Your task to perform on an android device: View the shopping cart on walmart. Add razer kraken to the cart on walmart Image 0: 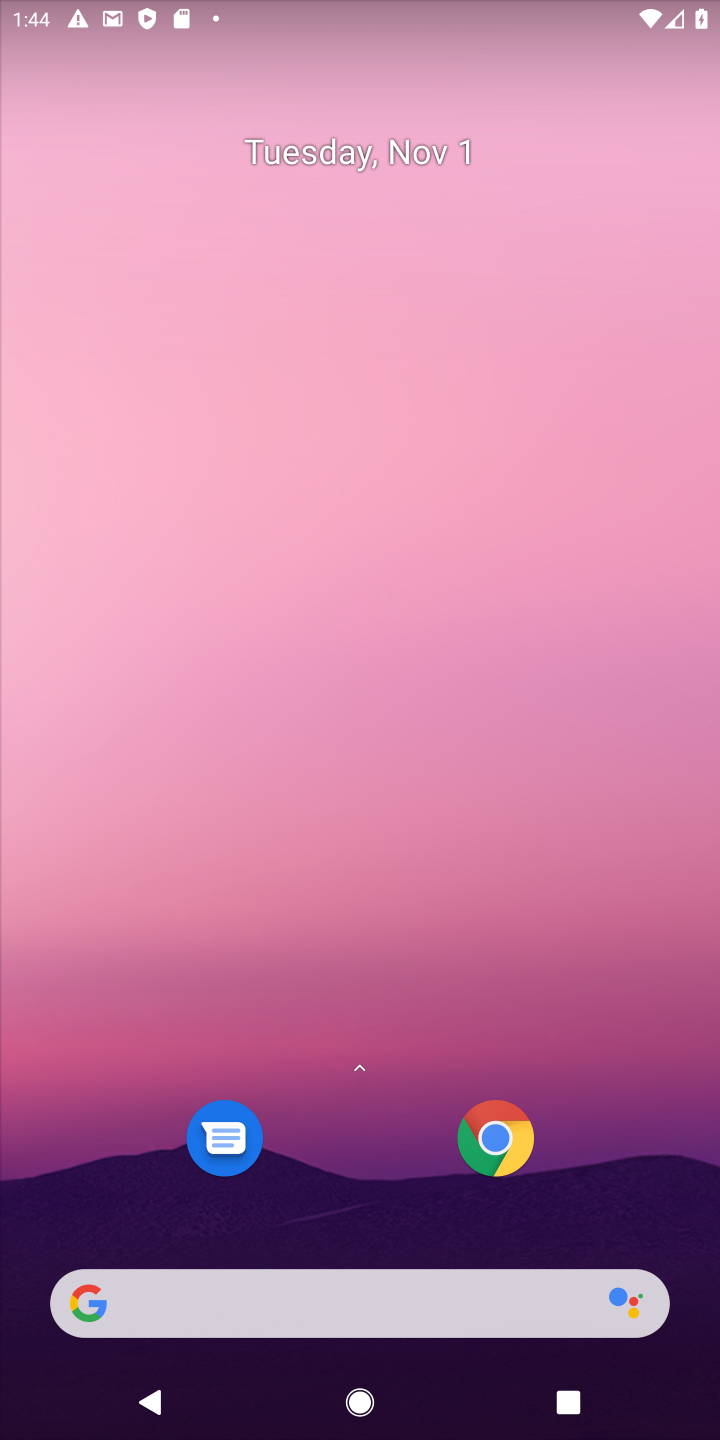
Step 0: drag from (416, 1206) to (430, 11)
Your task to perform on an android device: View the shopping cart on walmart. Add razer kraken to the cart on walmart Image 1: 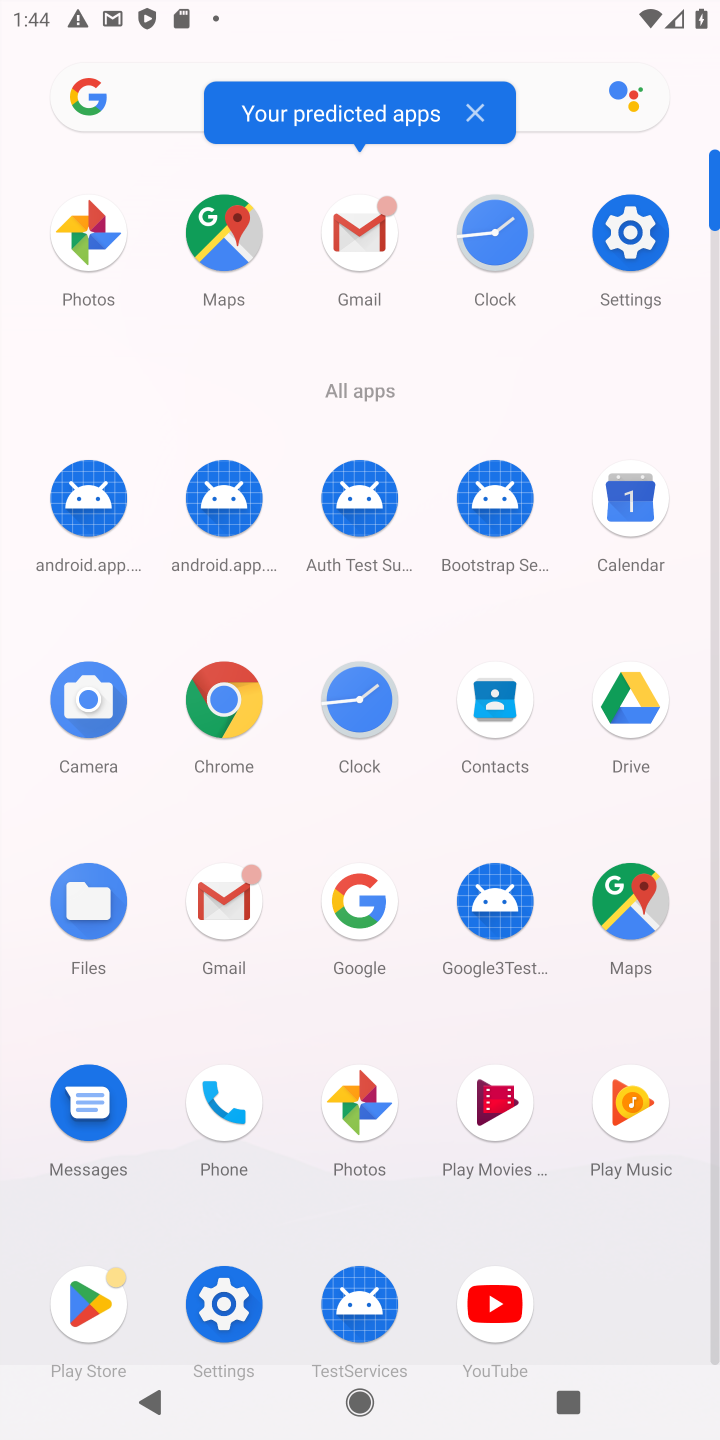
Step 1: click (220, 704)
Your task to perform on an android device: View the shopping cart on walmart. Add razer kraken to the cart on walmart Image 2: 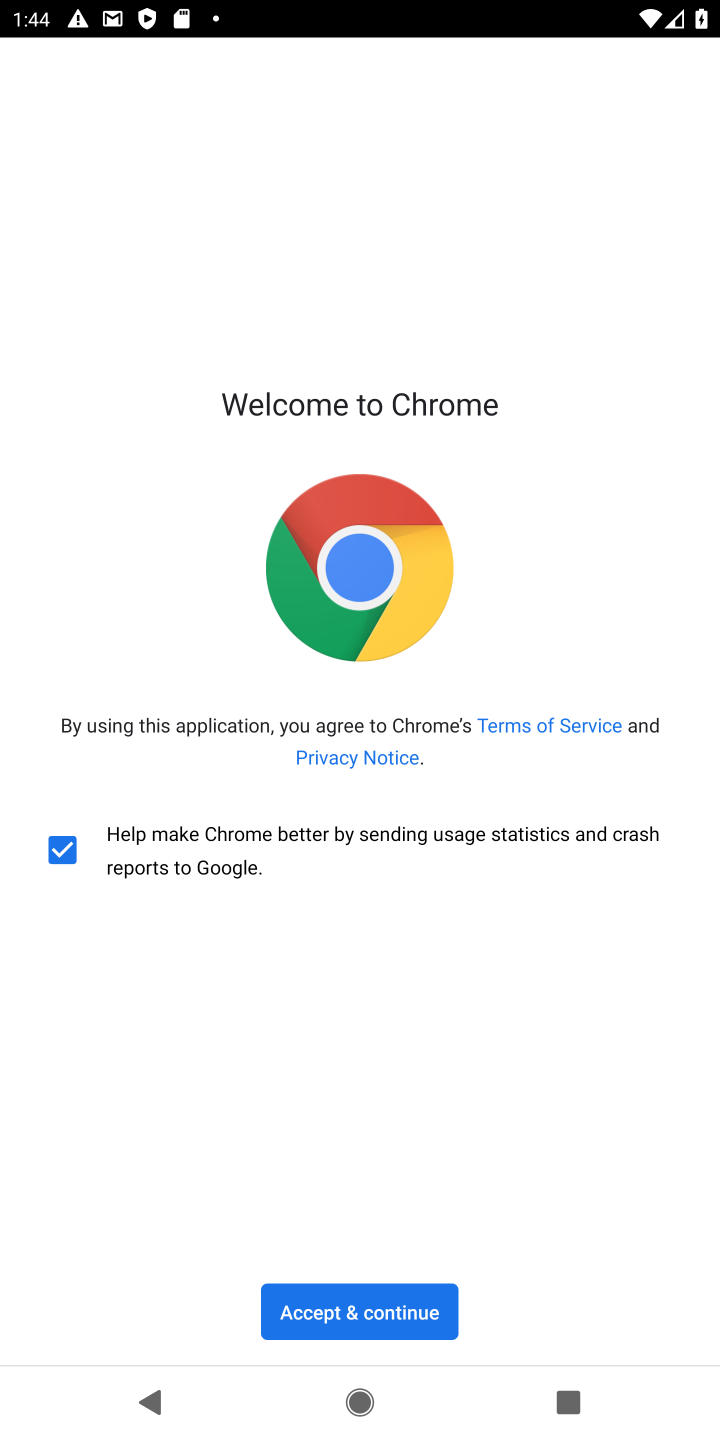
Step 2: click (365, 1310)
Your task to perform on an android device: View the shopping cart on walmart. Add razer kraken to the cart on walmart Image 3: 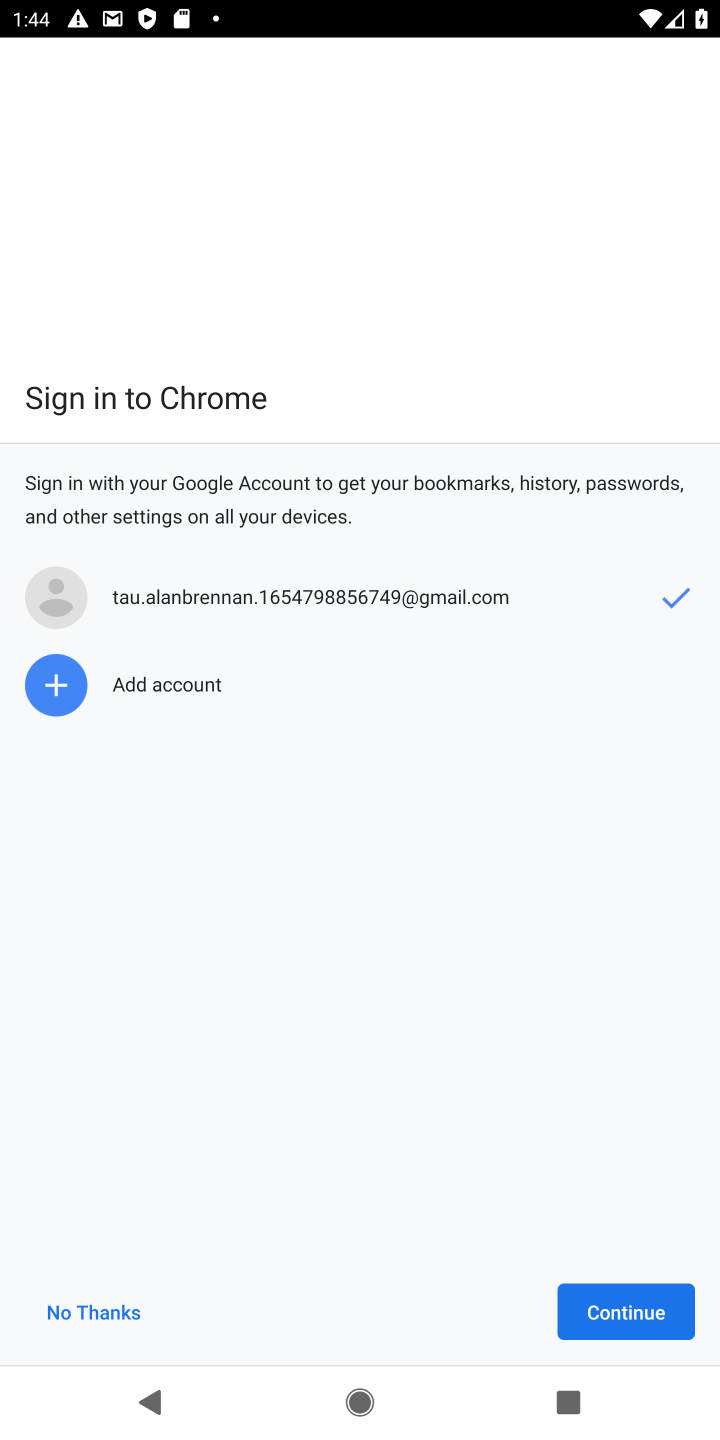
Step 3: click (622, 1306)
Your task to perform on an android device: View the shopping cart on walmart. Add razer kraken to the cart on walmart Image 4: 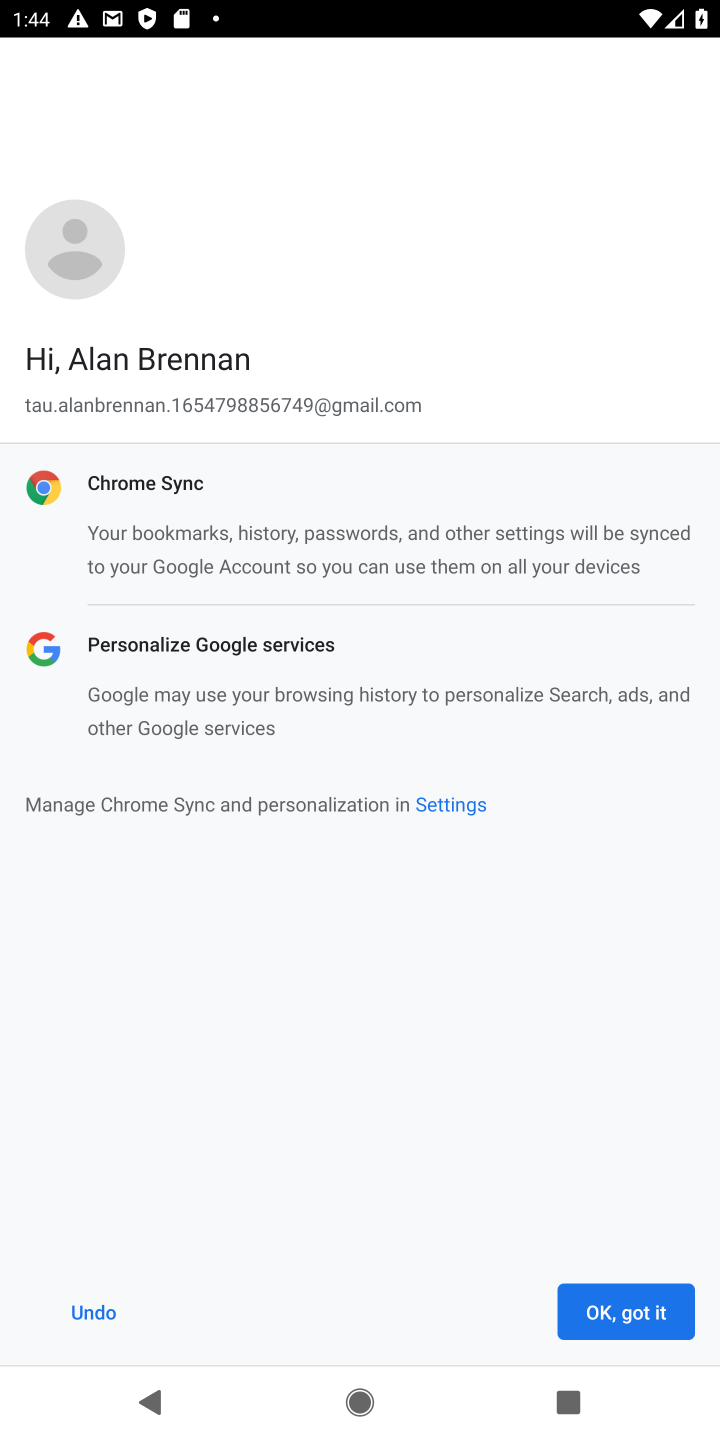
Step 4: click (622, 1306)
Your task to perform on an android device: View the shopping cart on walmart. Add razer kraken to the cart on walmart Image 5: 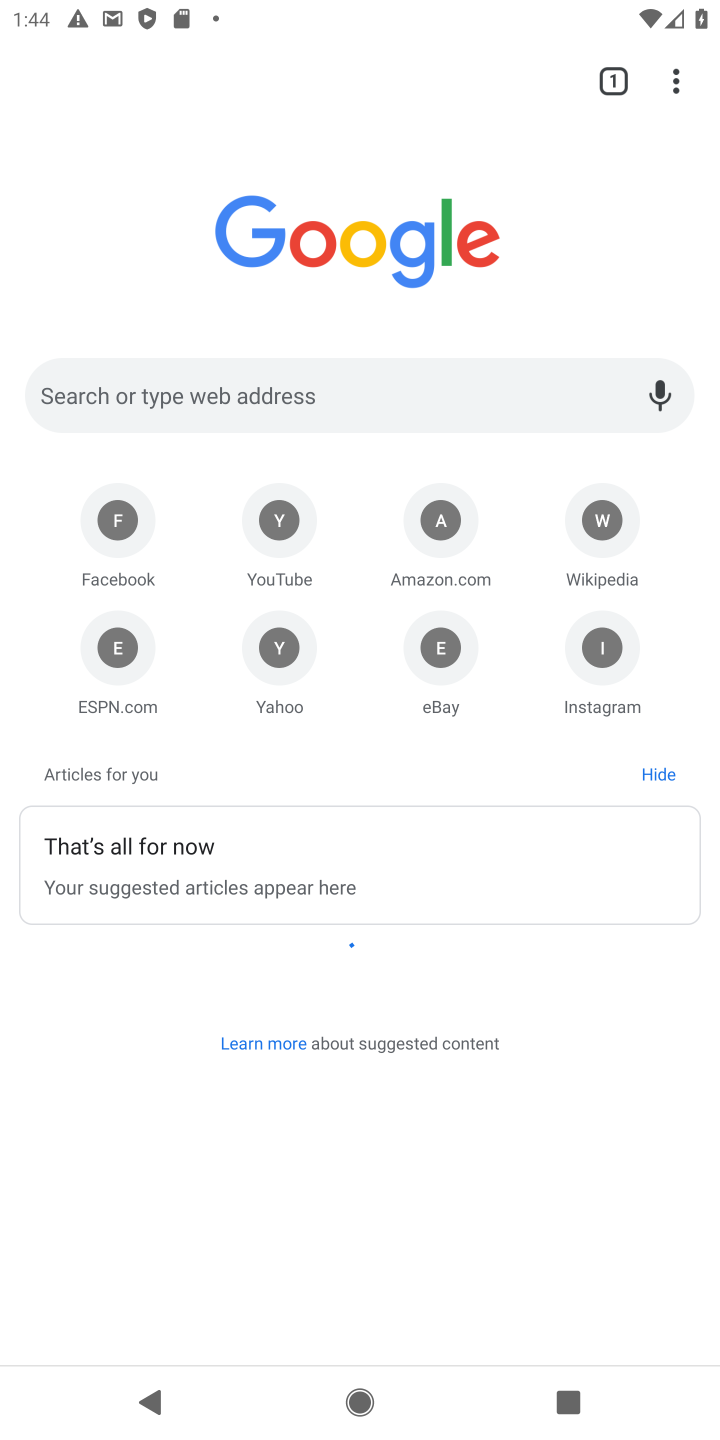
Step 5: click (236, 398)
Your task to perform on an android device: View the shopping cart on walmart. Add razer kraken to the cart on walmart Image 6: 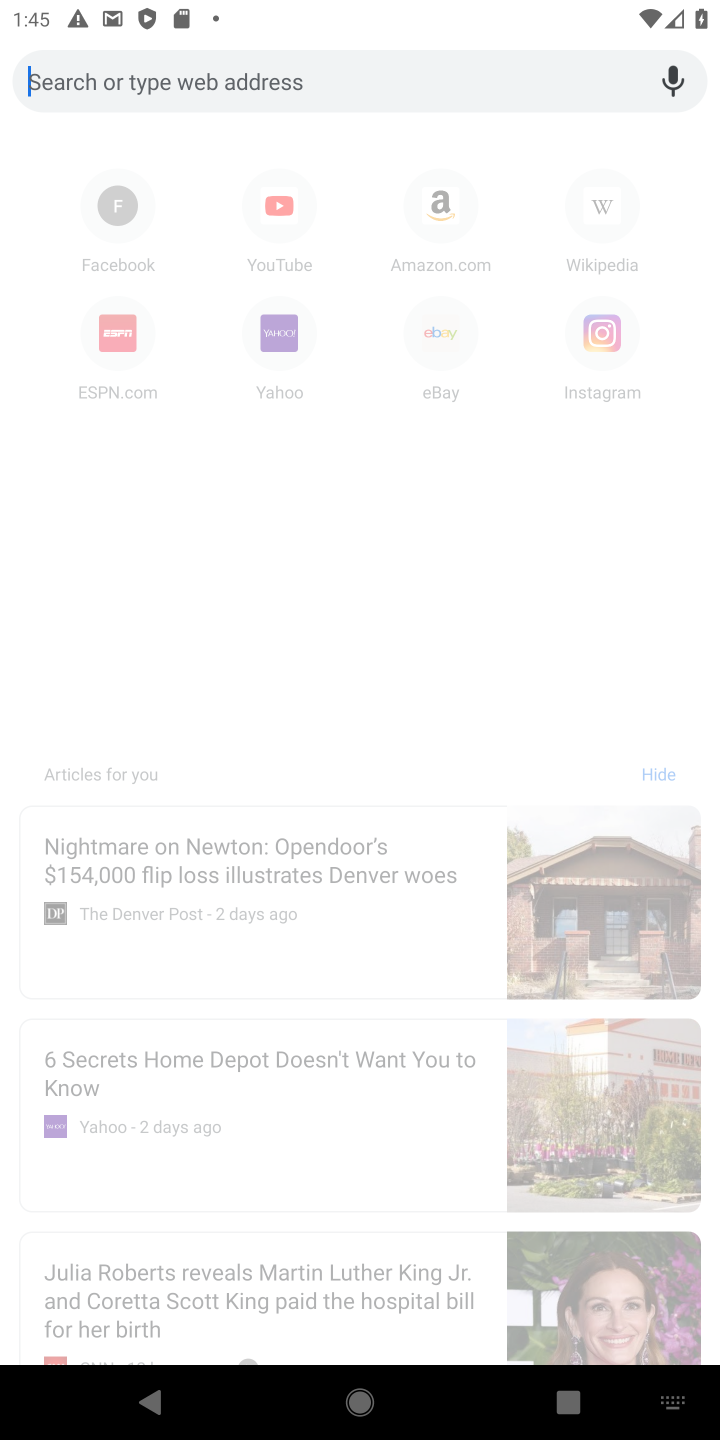
Step 6: type "walmart"
Your task to perform on an android device: View the shopping cart on walmart. Add razer kraken to the cart on walmart Image 7: 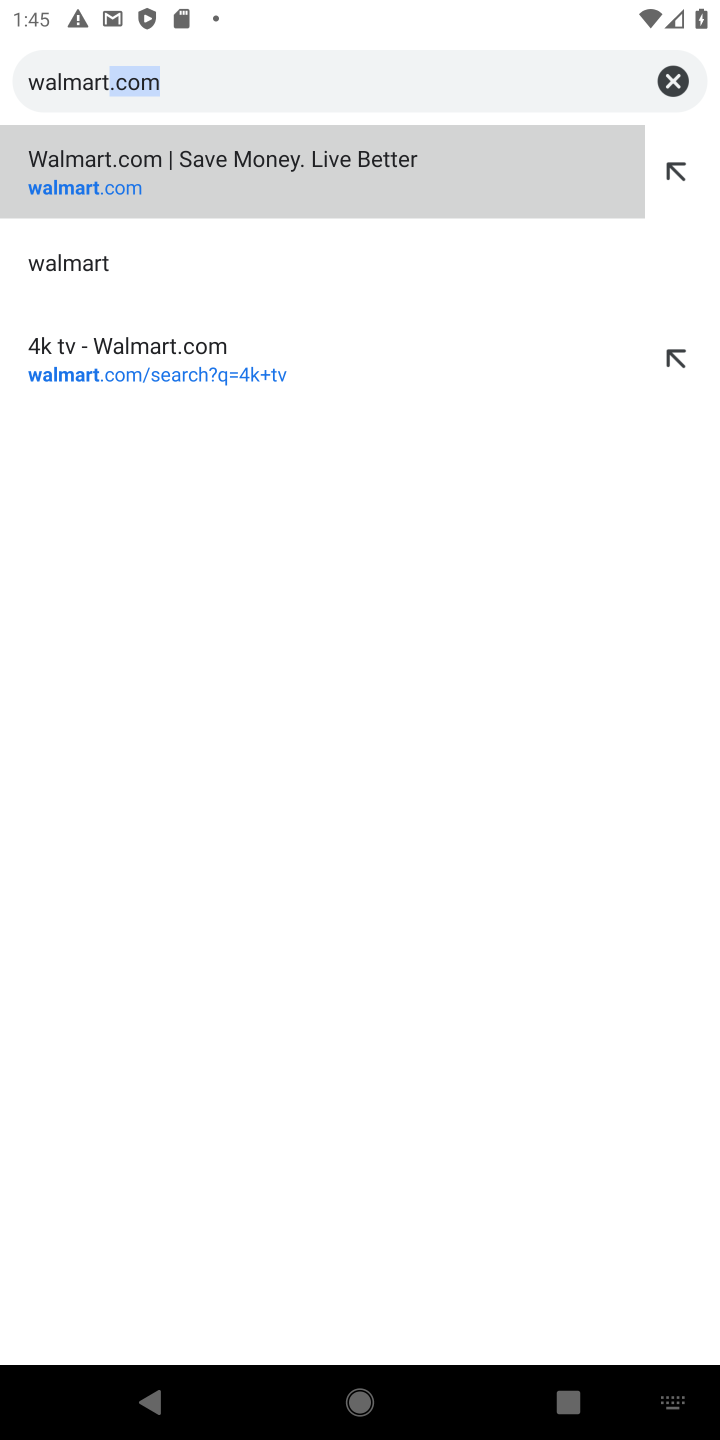
Step 7: click (60, 188)
Your task to perform on an android device: View the shopping cart on walmart. Add razer kraken to the cart on walmart Image 8: 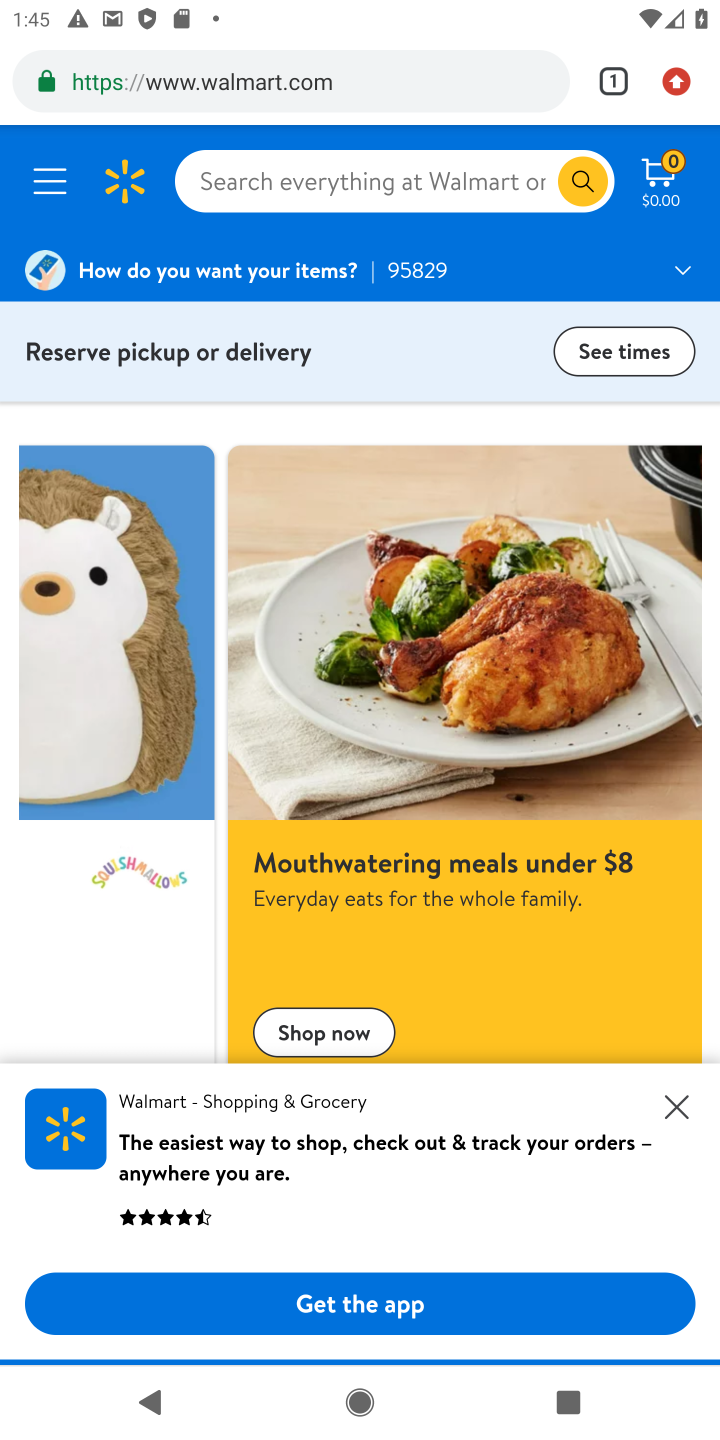
Step 8: click (373, 190)
Your task to perform on an android device: View the shopping cart on walmart. Add razer kraken to the cart on walmart Image 9: 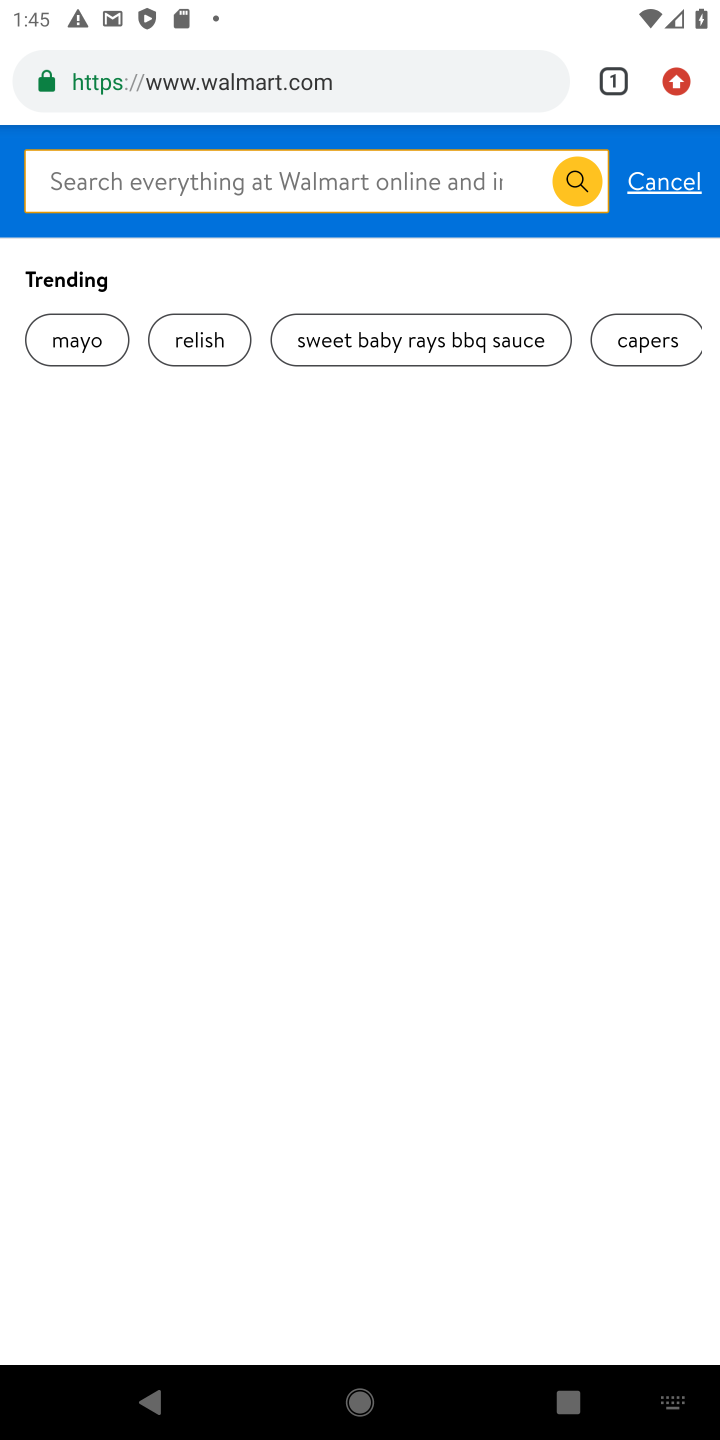
Step 9: type " razer kraken"
Your task to perform on an android device: View the shopping cart on walmart. Add razer kraken to the cart on walmart Image 10: 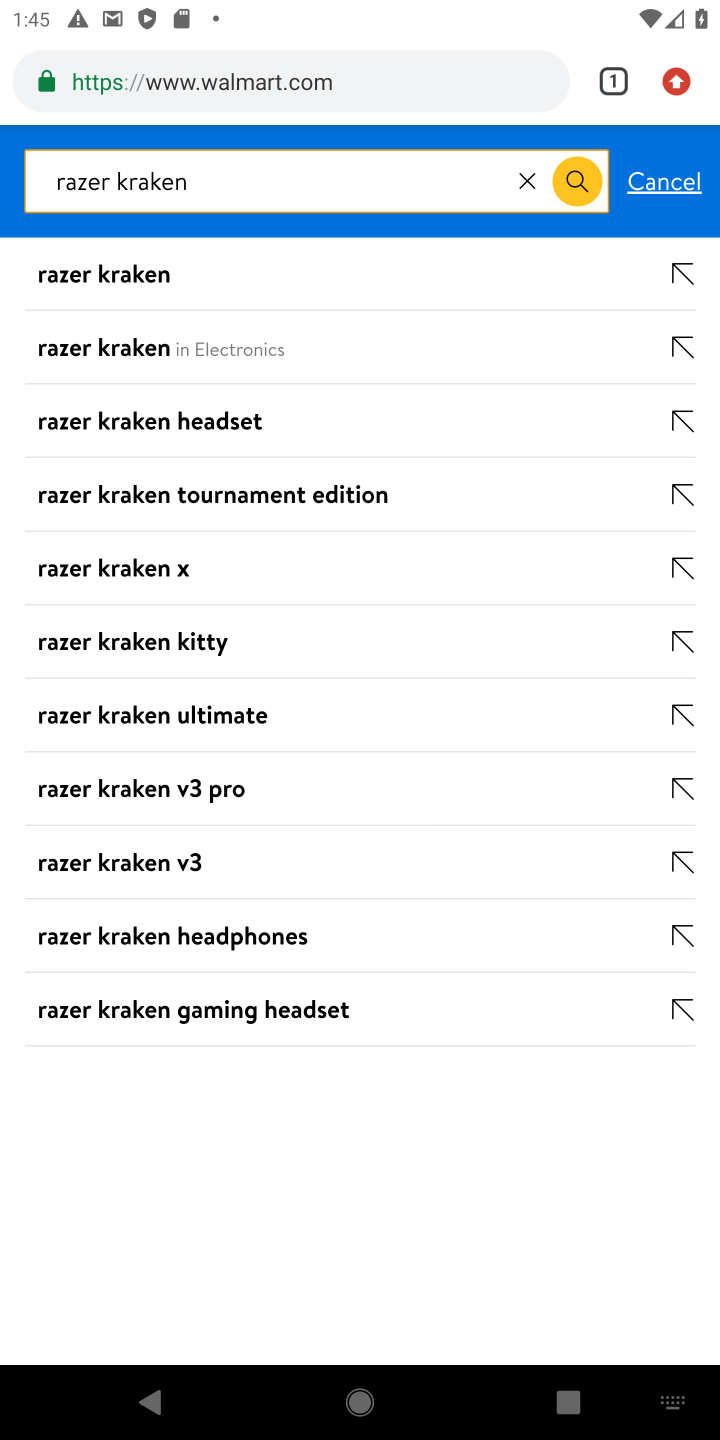
Step 10: click (77, 277)
Your task to perform on an android device: View the shopping cart on walmart. Add razer kraken to the cart on walmart Image 11: 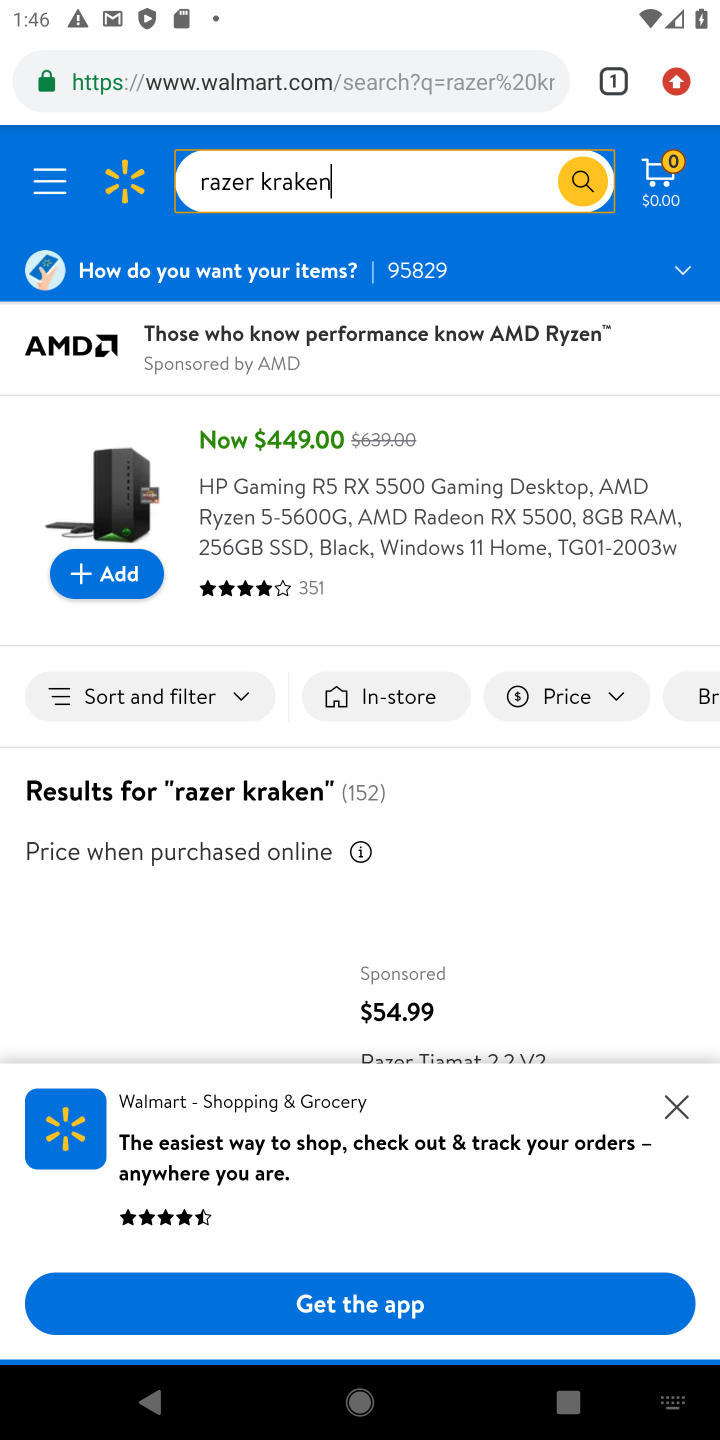
Step 11: click (429, 493)
Your task to perform on an android device: View the shopping cart on walmart. Add razer kraken to the cart on walmart Image 12: 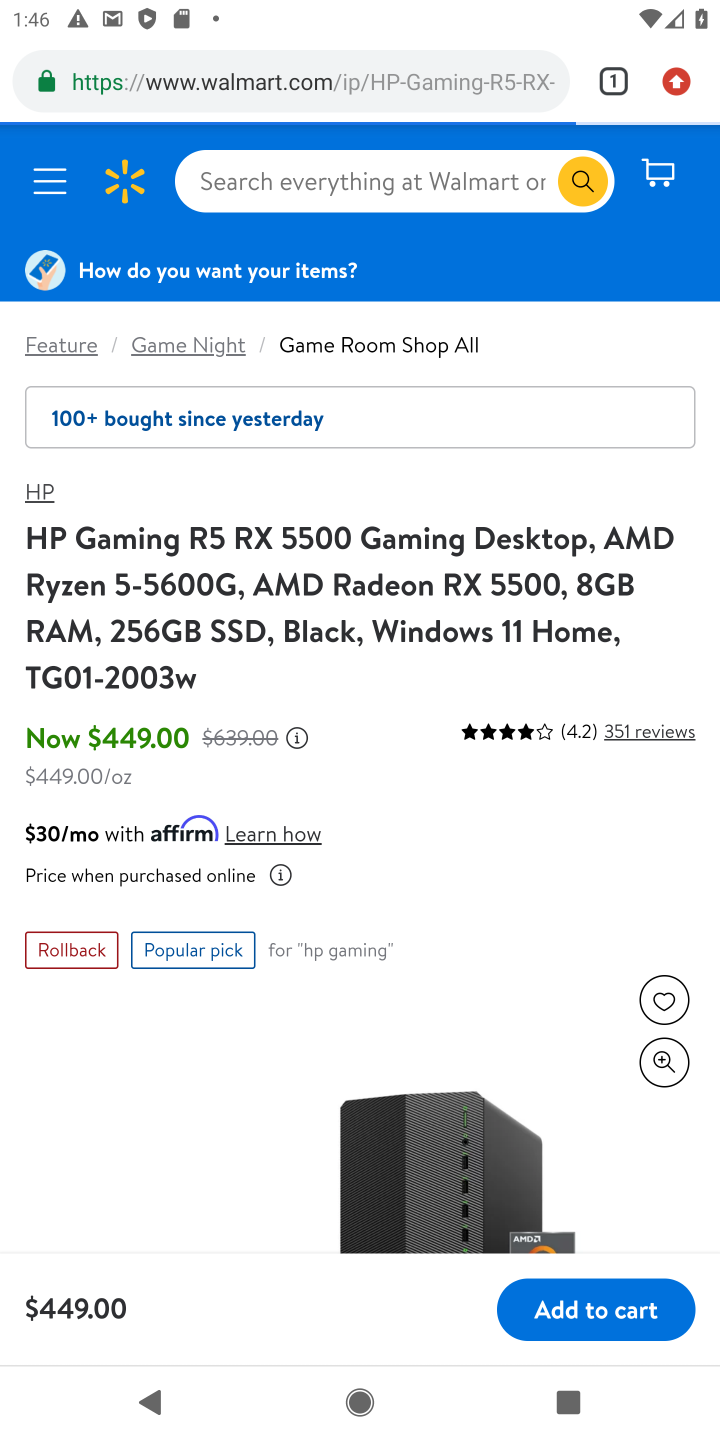
Step 12: drag from (501, 966) to (499, 503)
Your task to perform on an android device: View the shopping cart on walmart. Add razer kraken to the cart on walmart Image 13: 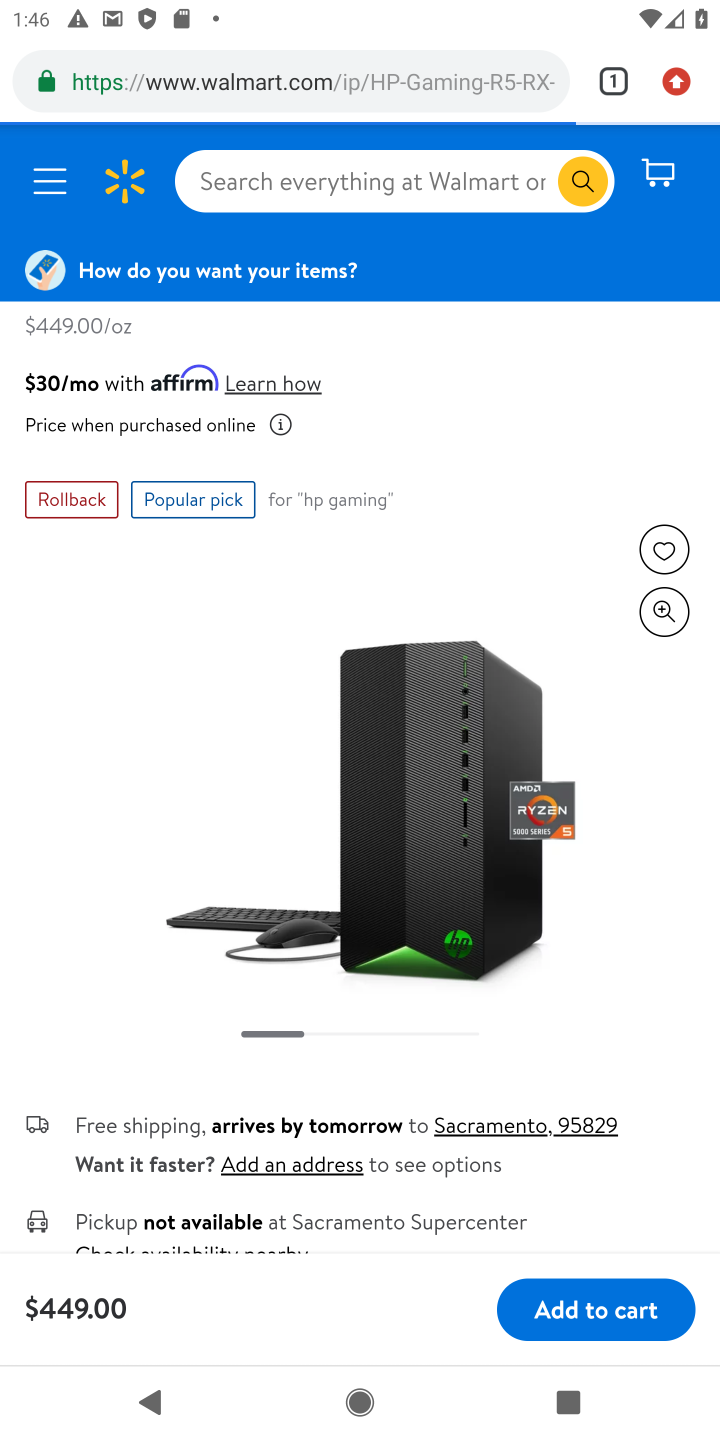
Step 13: click (623, 1305)
Your task to perform on an android device: View the shopping cart on walmart. Add razer kraken to the cart on walmart Image 14: 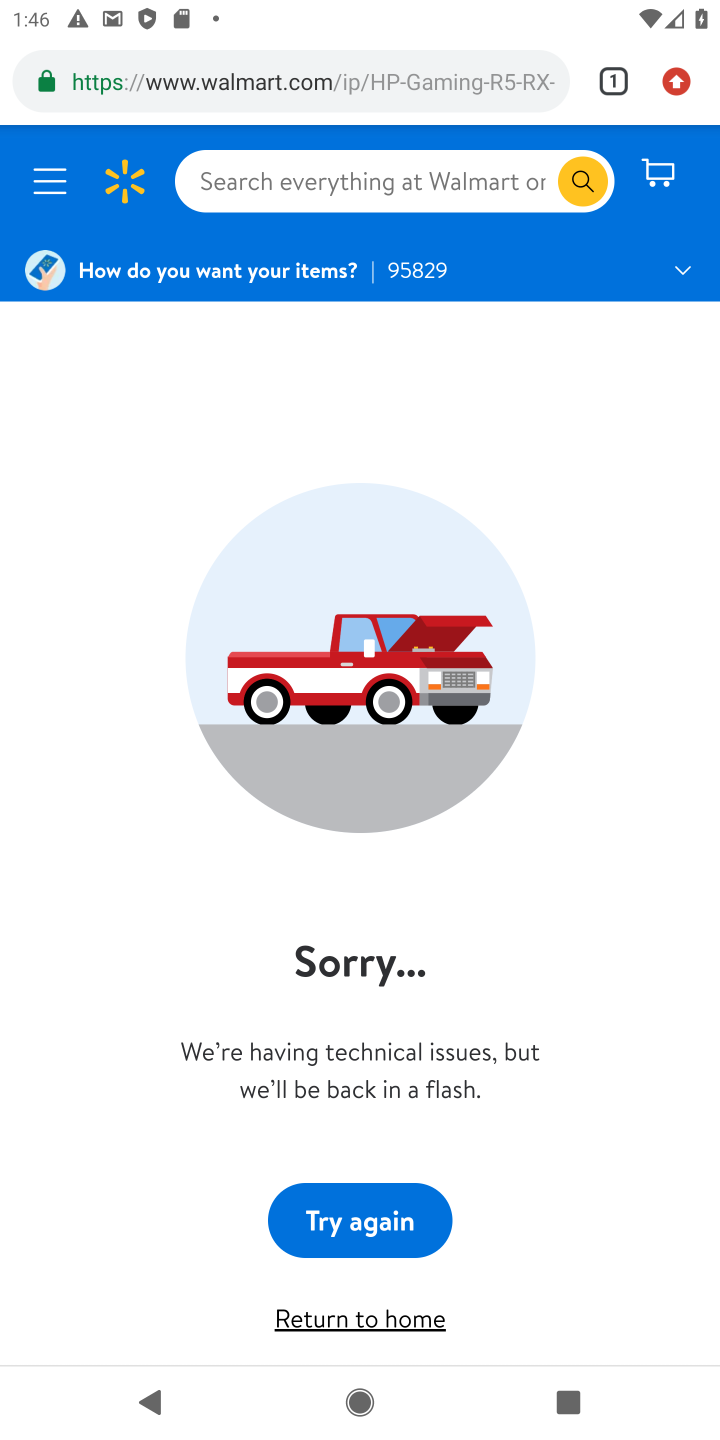
Step 14: task complete